Your task to perform on an android device: Open Chrome and go to the settings page Image 0: 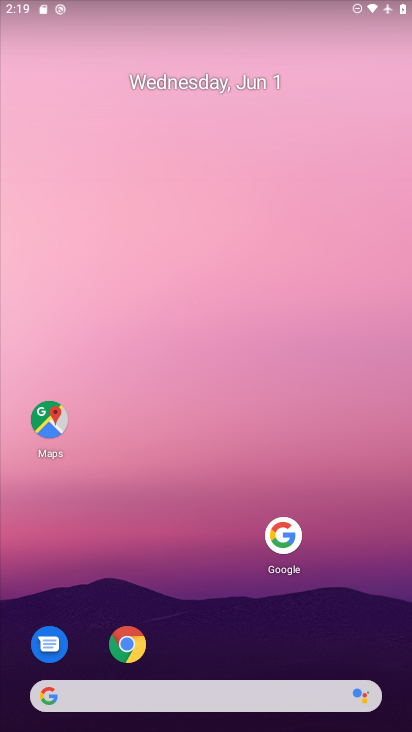
Step 0: click (125, 642)
Your task to perform on an android device: Open Chrome and go to the settings page Image 1: 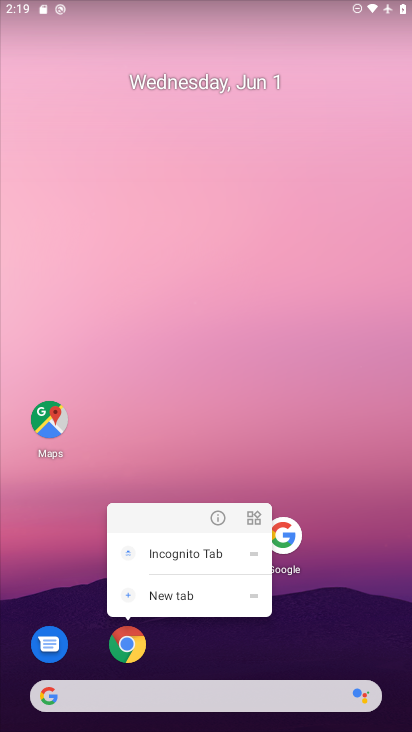
Step 1: click (125, 642)
Your task to perform on an android device: Open Chrome and go to the settings page Image 2: 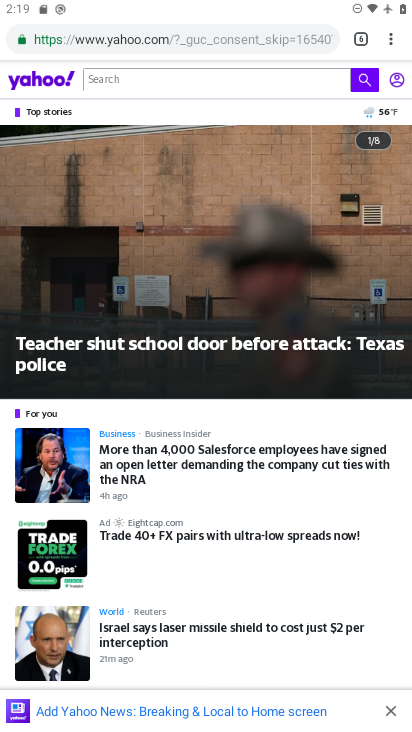
Step 2: task complete